Your task to perform on an android device: Find coffee shops on Maps Image 0: 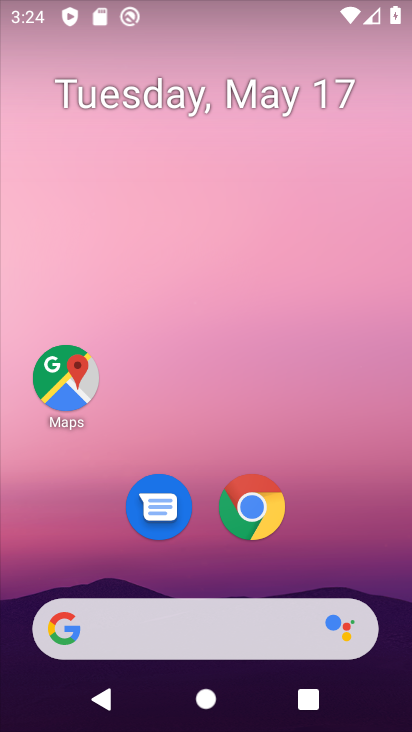
Step 0: click (70, 380)
Your task to perform on an android device: Find coffee shops on Maps Image 1: 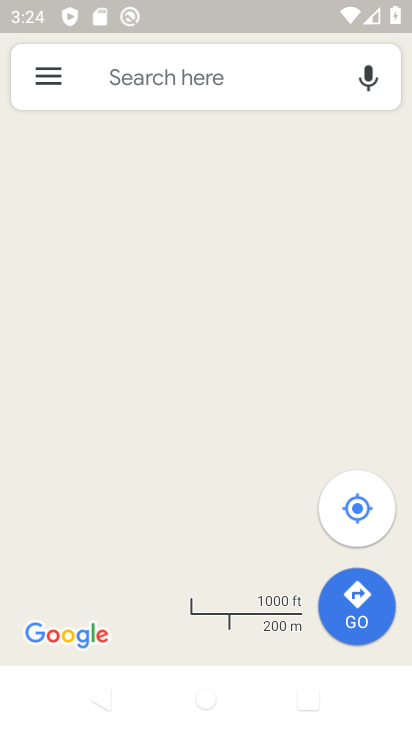
Step 1: click (159, 76)
Your task to perform on an android device: Find coffee shops on Maps Image 2: 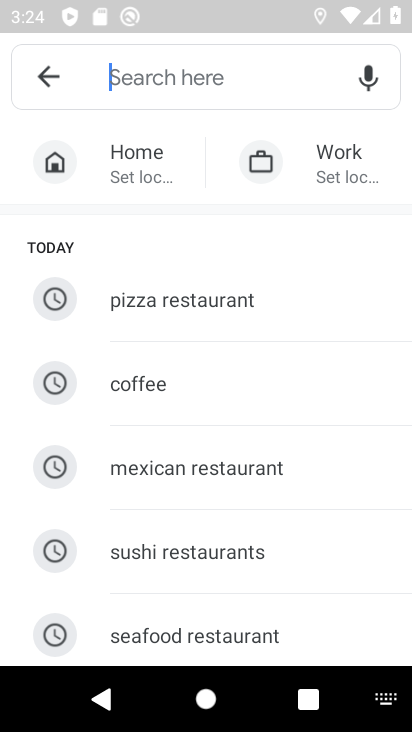
Step 2: type "coffee shops"
Your task to perform on an android device: Find coffee shops on Maps Image 3: 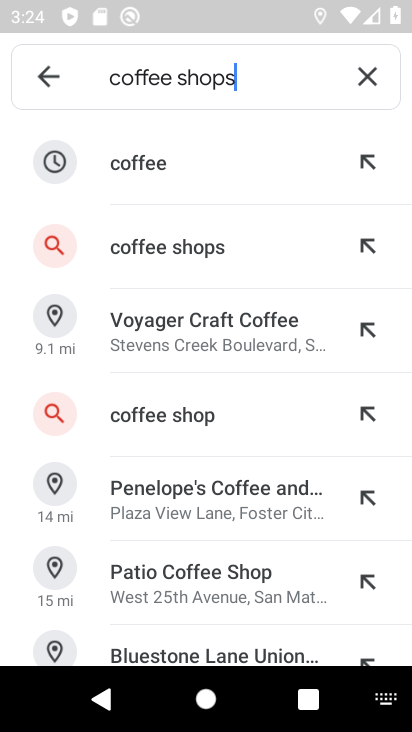
Step 3: click (200, 249)
Your task to perform on an android device: Find coffee shops on Maps Image 4: 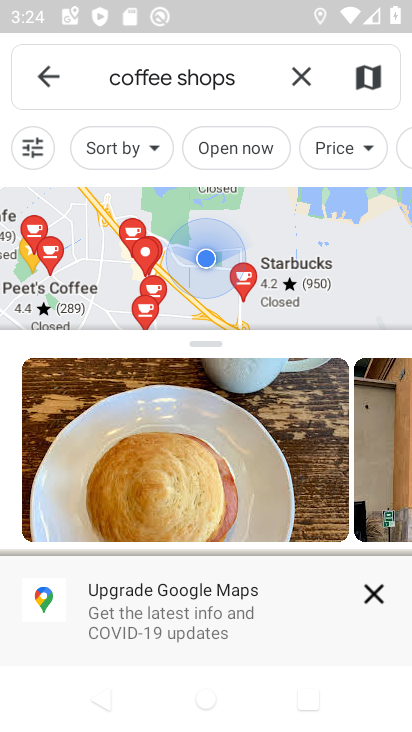
Step 4: task complete